Your task to perform on an android device: Go to Wikipedia Image 0: 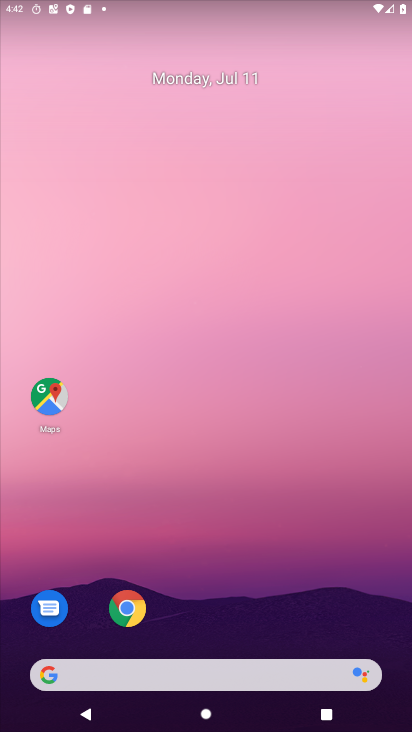
Step 0: drag from (290, 664) to (235, 59)
Your task to perform on an android device: Go to Wikipedia Image 1: 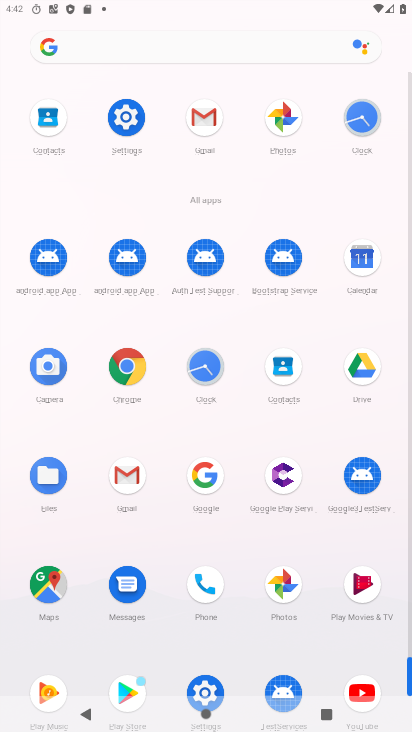
Step 1: click (142, 366)
Your task to perform on an android device: Go to Wikipedia Image 2: 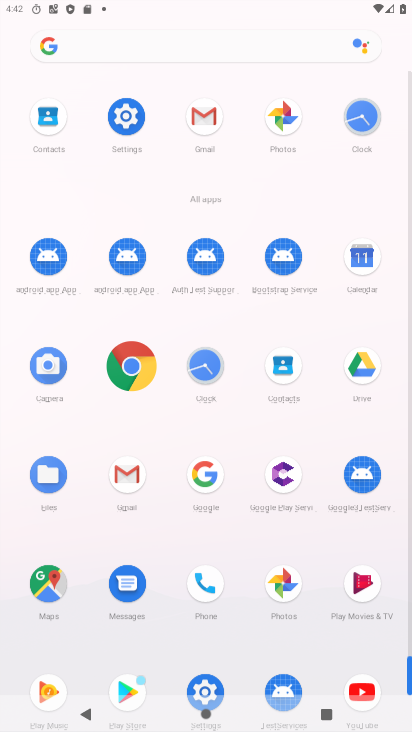
Step 2: click (137, 367)
Your task to perform on an android device: Go to Wikipedia Image 3: 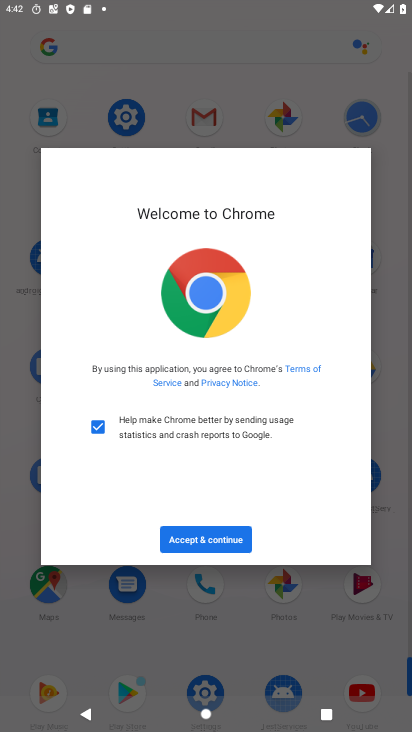
Step 3: click (209, 543)
Your task to perform on an android device: Go to Wikipedia Image 4: 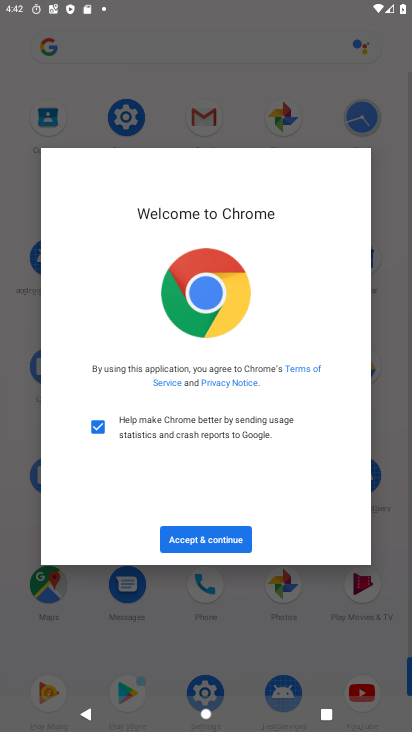
Step 4: click (210, 540)
Your task to perform on an android device: Go to Wikipedia Image 5: 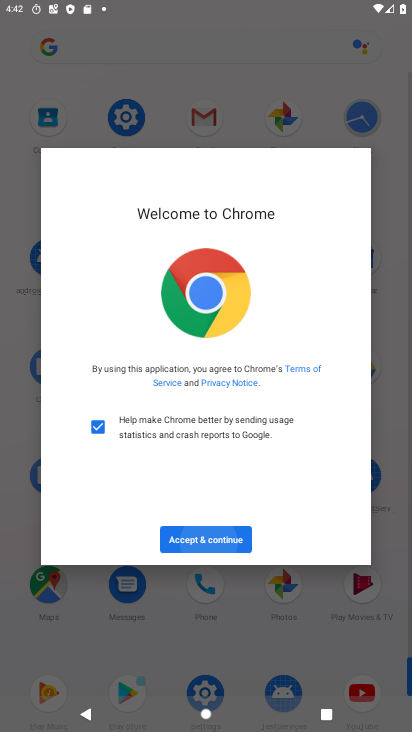
Step 5: click (212, 539)
Your task to perform on an android device: Go to Wikipedia Image 6: 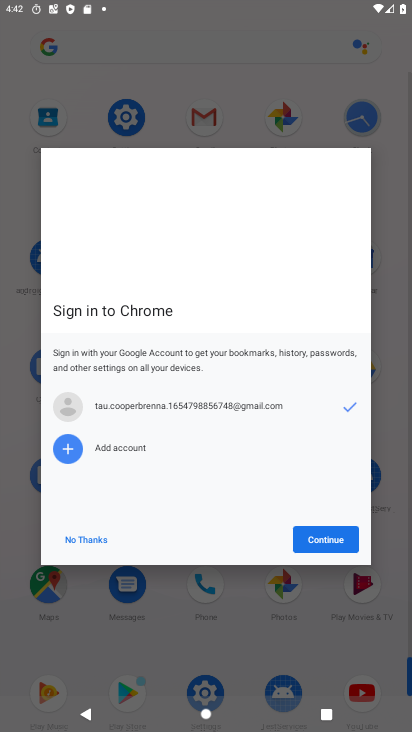
Step 6: click (336, 545)
Your task to perform on an android device: Go to Wikipedia Image 7: 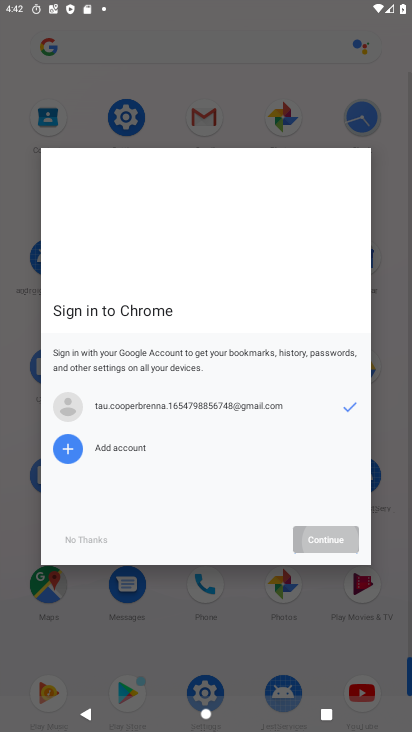
Step 7: click (340, 534)
Your task to perform on an android device: Go to Wikipedia Image 8: 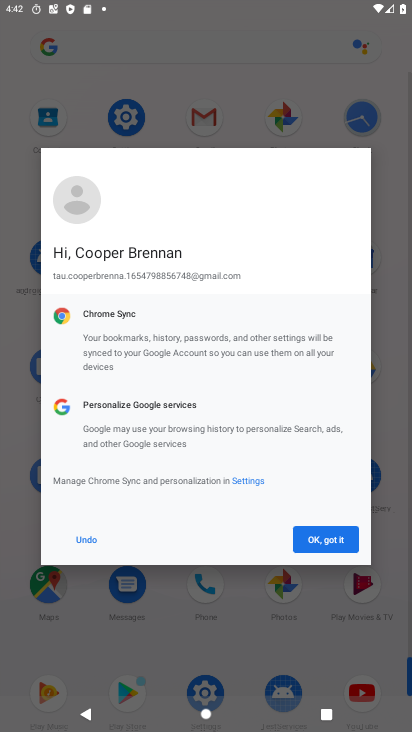
Step 8: click (321, 537)
Your task to perform on an android device: Go to Wikipedia Image 9: 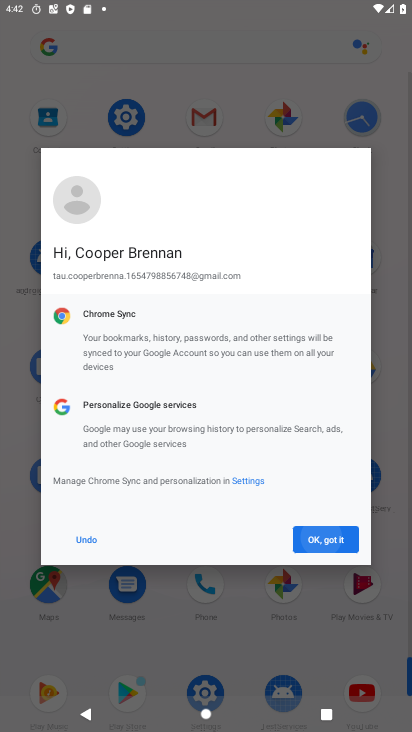
Step 9: click (327, 536)
Your task to perform on an android device: Go to Wikipedia Image 10: 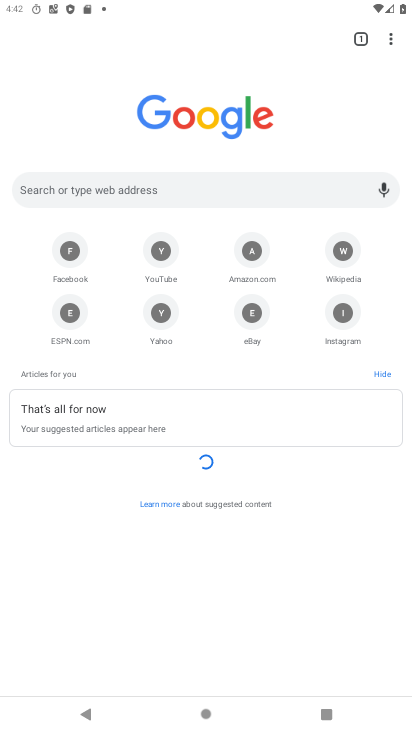
Step 10: click (342, 245)
Your task to perform on an android device: Go to Wikipedia Image 11: 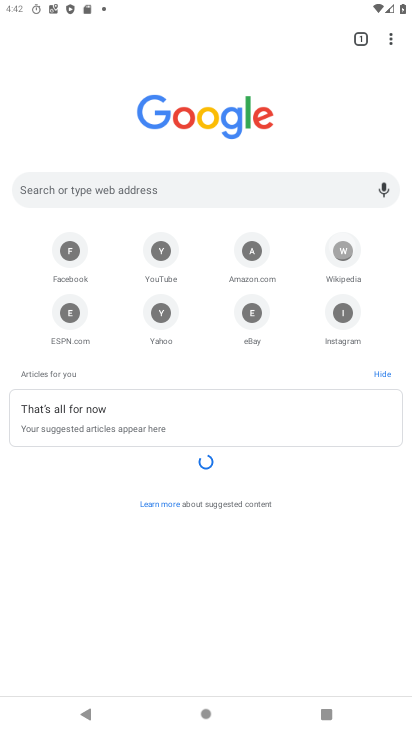
Step 11: click (345, 243)
Your task to perform on an android device: Go to Wikipedia Image 12: 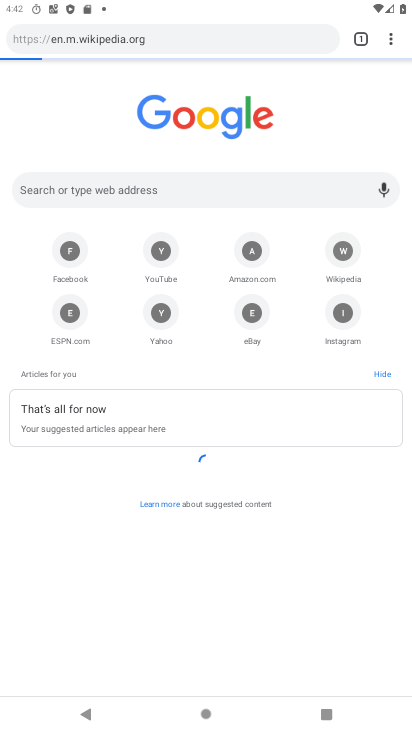
Step 12: click (346, 243)
Your task to perform on an android device: Go to Wikipedia Image 13: 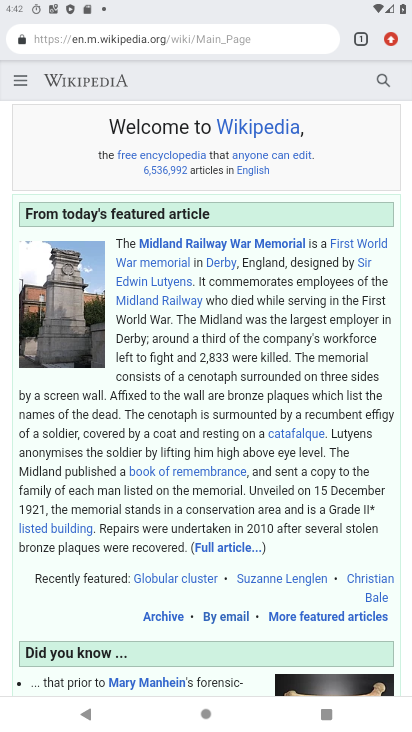
Step 13: task complete